Your task to perform on an android device: snooze an email in the gmail app Image 0: 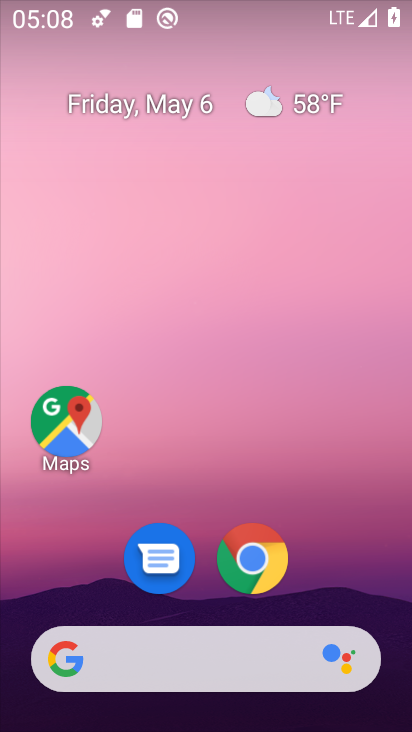
Step 0: drag from (329, 616) to (348, 5)
Your task to perform on an android device: snooze an email in the gmail app Image 1: 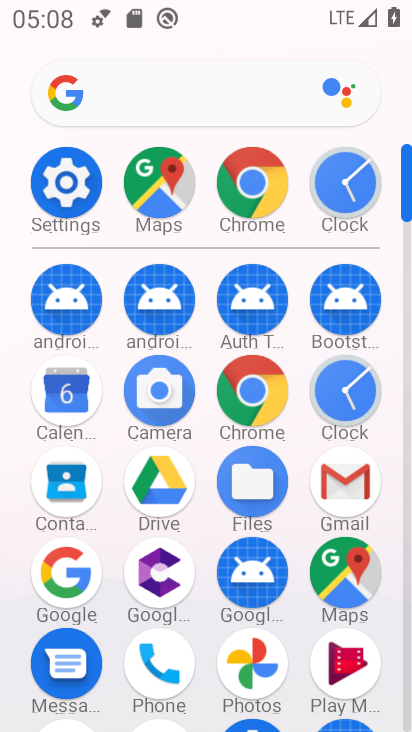
Step 1: click (341, 499)
Your task to perform on an android device: snooze an email in the gmail app Image 2: 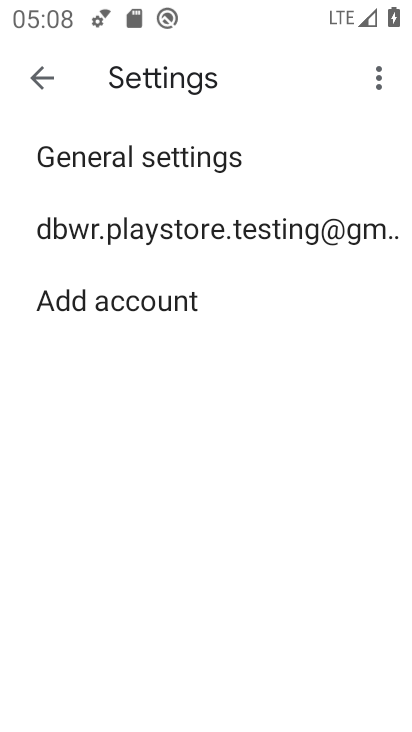
Step 2: press back button
Your task to perform on an android device: snooze an email in the gmail app Image 3: 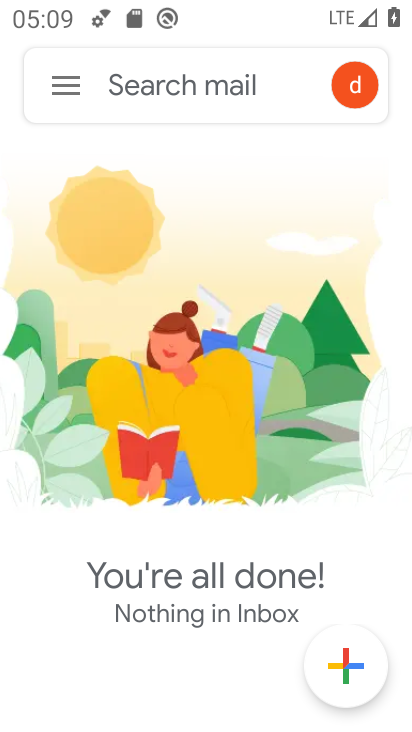
Step 3: click (53, 88)
Your task to perform on an android device: snooze an email in the gmail app Image 4: 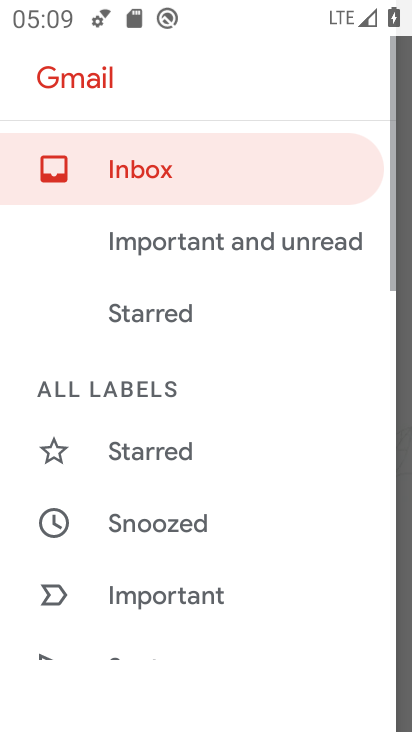
Step 4: drag from (255, 611) to (277, 186)
Your task to perform on an android device: snooze an email in the gmail app Image 5: 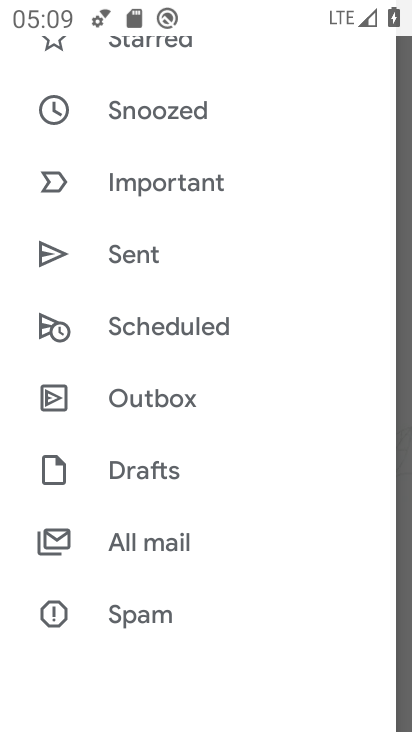
Step 5: drag from (175, 637) to (199, 152)
Your task to perform on an android device: snooze an email in the gmail app Image 6: 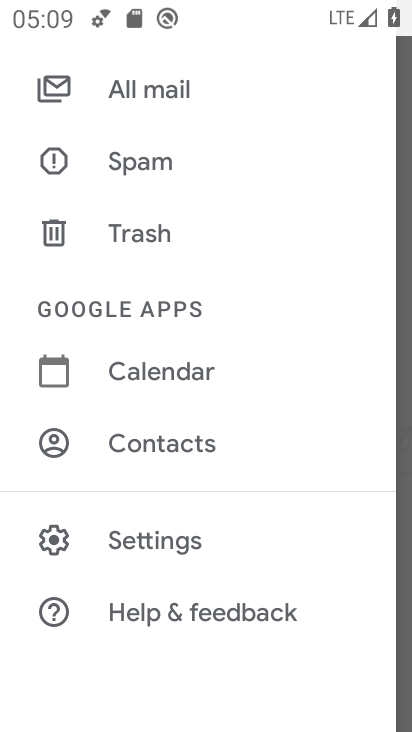
Step 6: drag from (294, 227) to (270, 710)
Your task to perform on an android device: snooze an email in the gmail app Image 7: 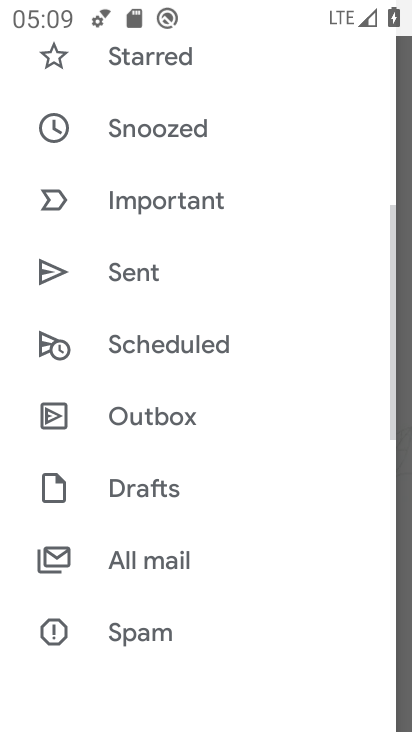
Step 7: drag from (278, 264) to (276, 606)
Your task to perform on an android device: snooze an email in the gmail app Image 8: 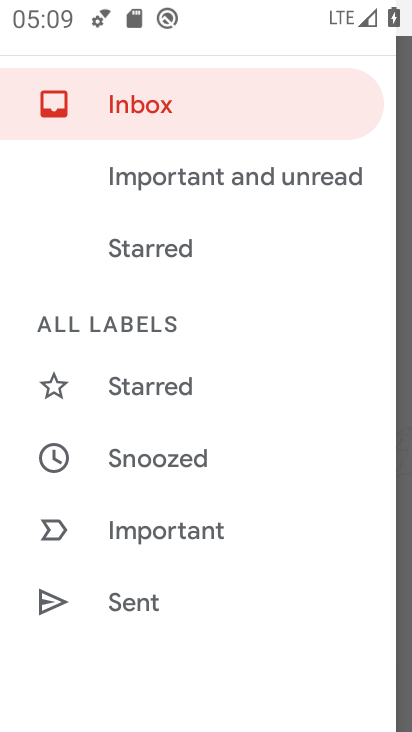
Step 8: click (191, 470)
Your task to perform on an android device: snooze an email in the gmail app Image 9: 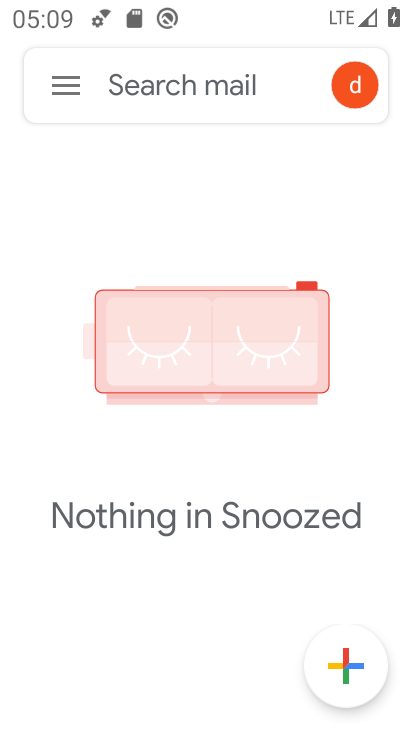
Step 9: task complete